Your task to perform on an android device: What's the weather today? Image 0: 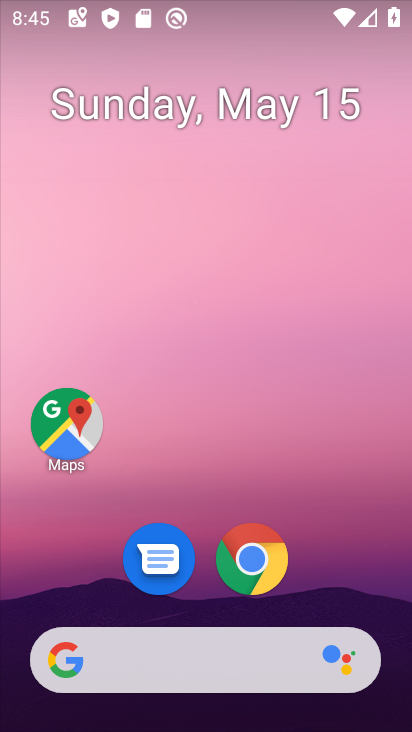
Step 0: drag from (357, 595) to (381, 159)
Your task to perform on an android device: What's the weather today? Image 1: 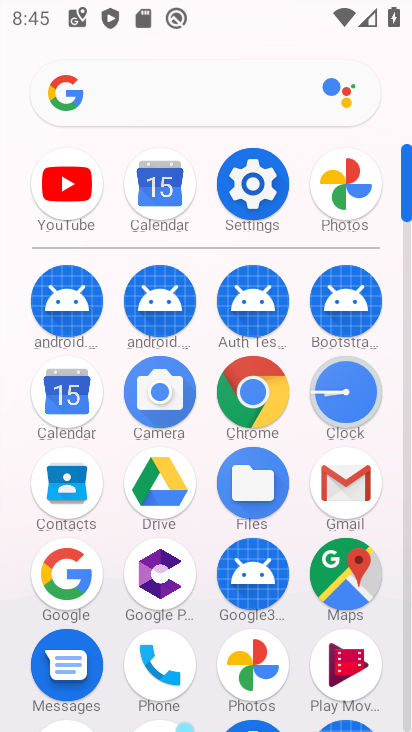
Step 1: click (199, 113)
Your task to perform on an android device: What's the weather today? Image 2: 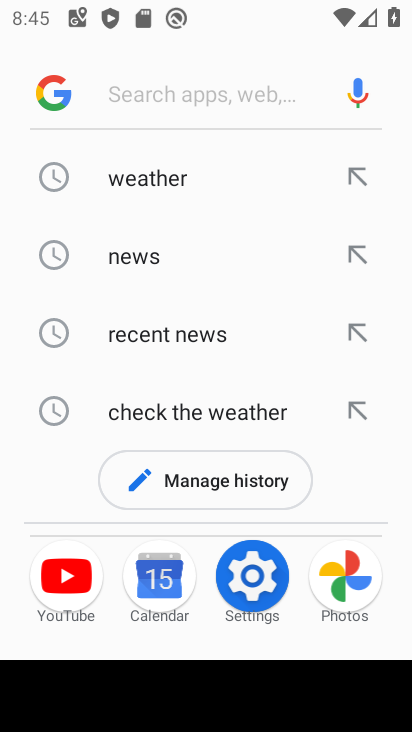
Step 2: click (182, 176)
Your task to perform on an android device: What's the weather today? Image 3: 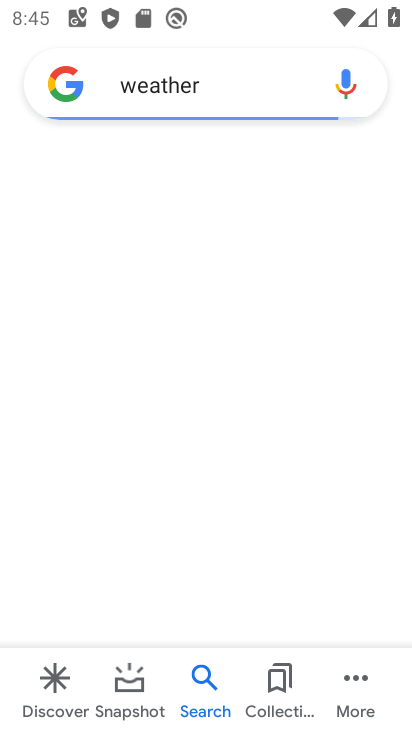
Step 3: task complete